Your task to perform on an android device: turn on data saver in the chrome app Image 0: 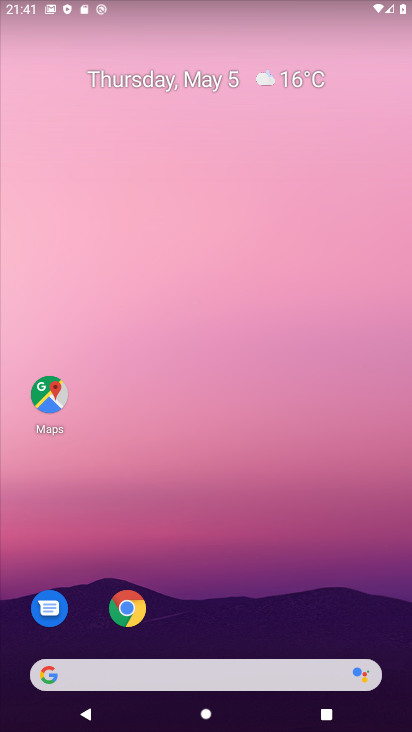
Step 0: click (131, 616)
Your task to perform on an android device: turn on data saver in the chrome app Image 1: 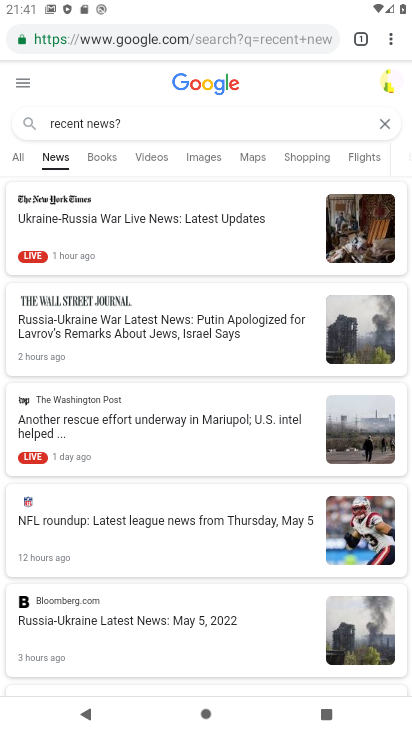
Step 1: drag from (393, 37) to (268, 437)
Your task to perform on an android device: turn on data saver in the chrome app Image 2: 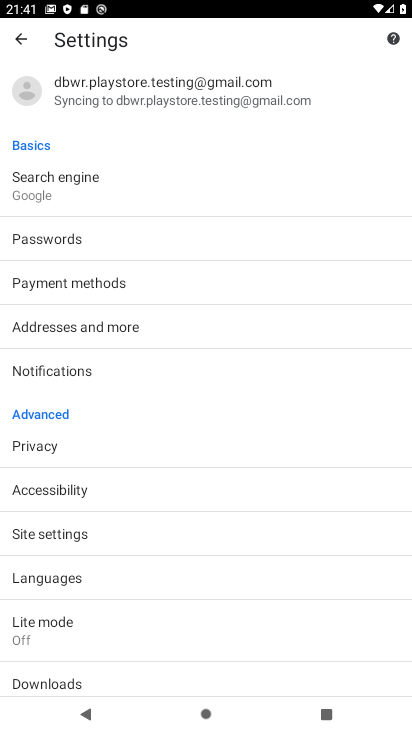
Step 2: click (71, 627)
Your task to perform on an android device: turn on data saver in the chrome app Image 3: 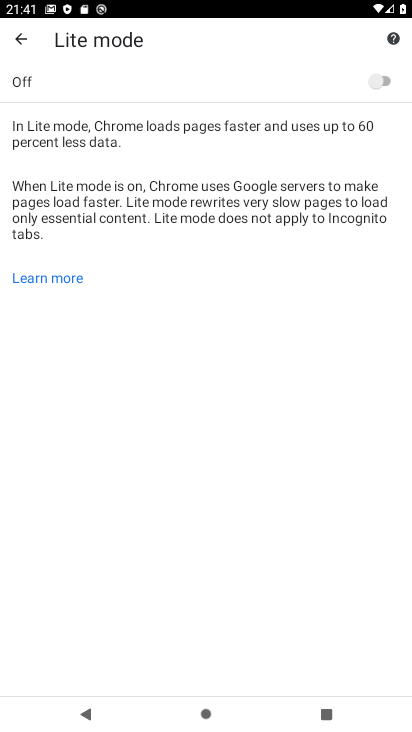
Step 3: click (382, 78)
Your task to perform on an android device: turn on data saver in the chrome app Image 4: 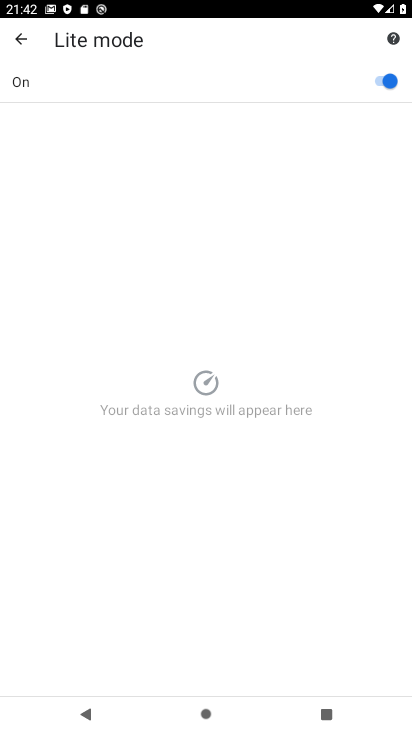
Step 4: task complete